Your task to perform on an android device: Add bose quietcomfort 35 to the cart on costco.com Image 0: 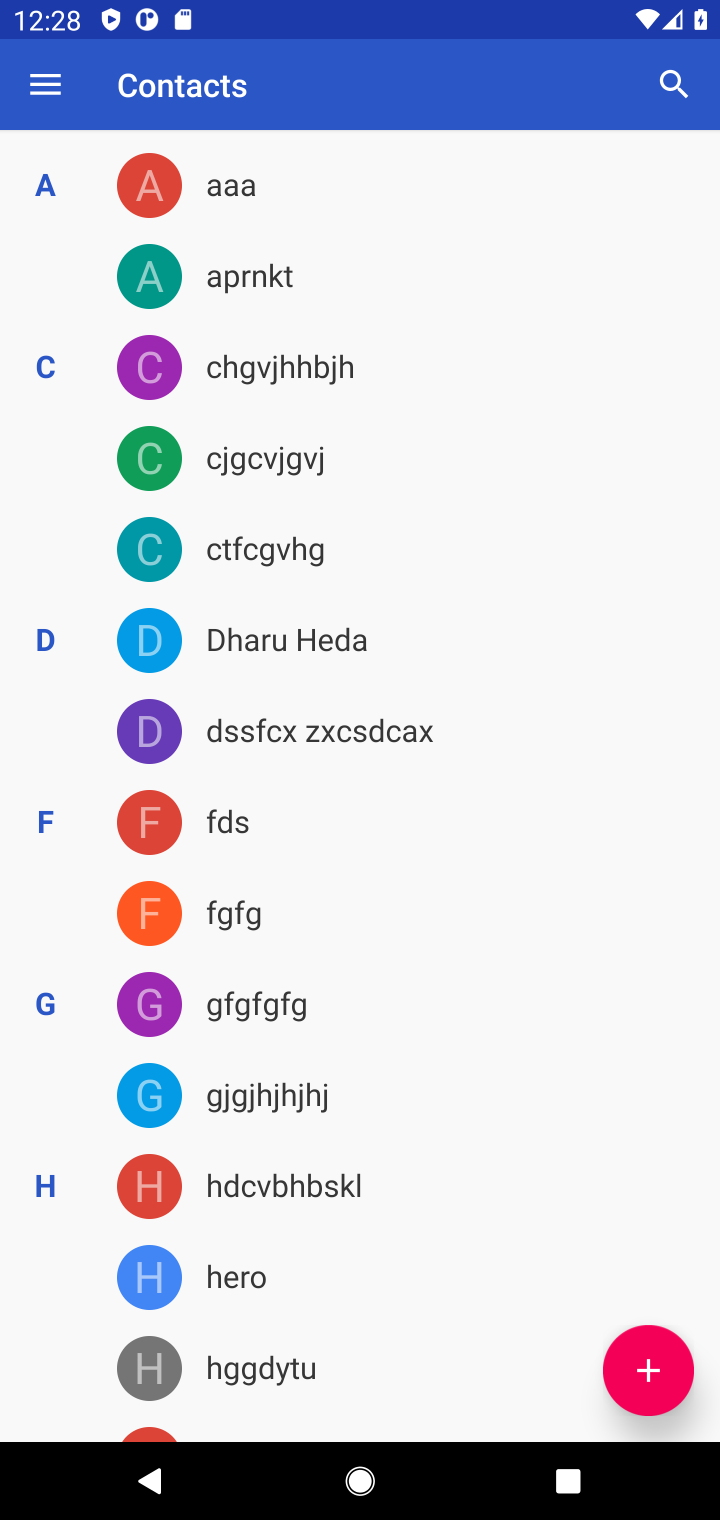
Step 0: press home button
Your task to perform on an android device: Add bose quietcomfort 35 to the cart on costco.com Image 1: 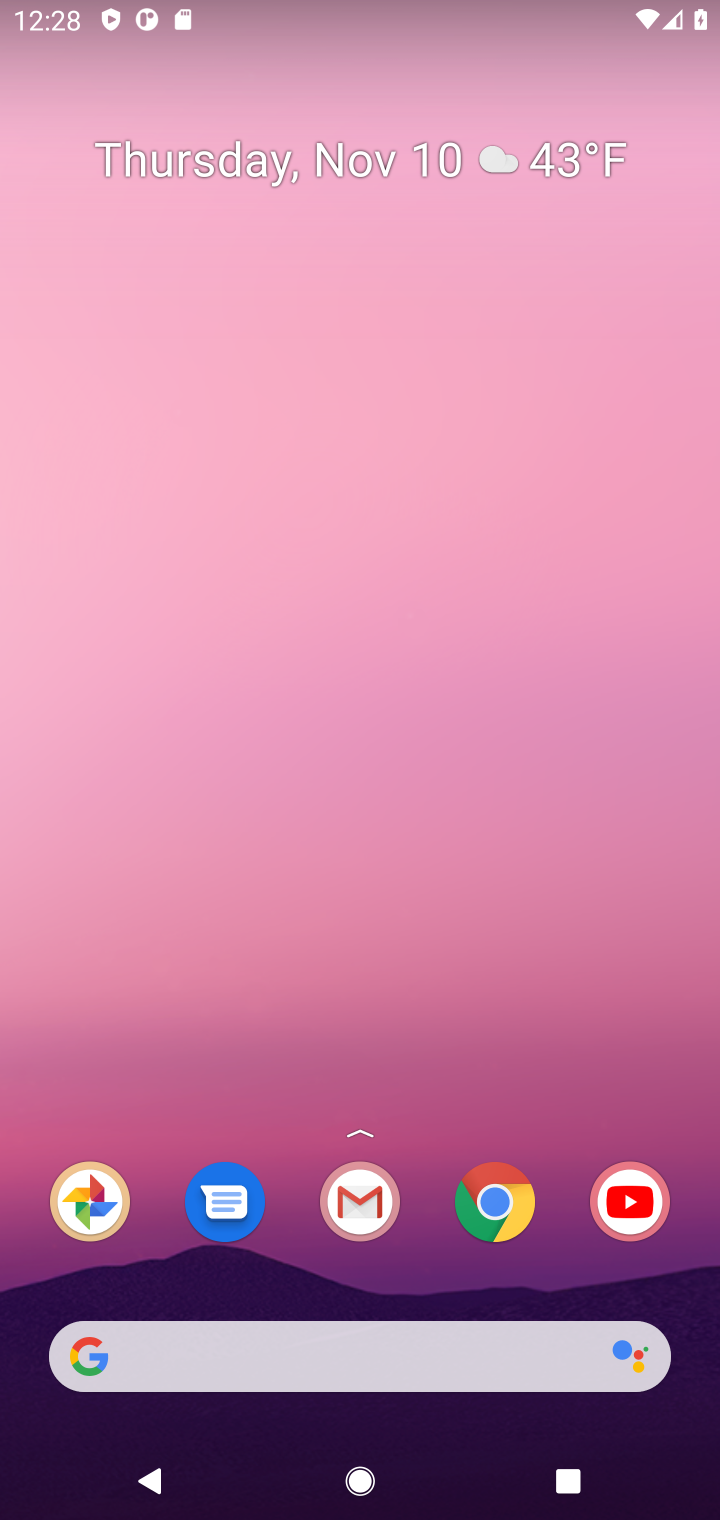
Step 1: click (511, 1197)
Your task to perform on an android device: Add bose quietcomfort 35 to the cart on costco.com Image 2: 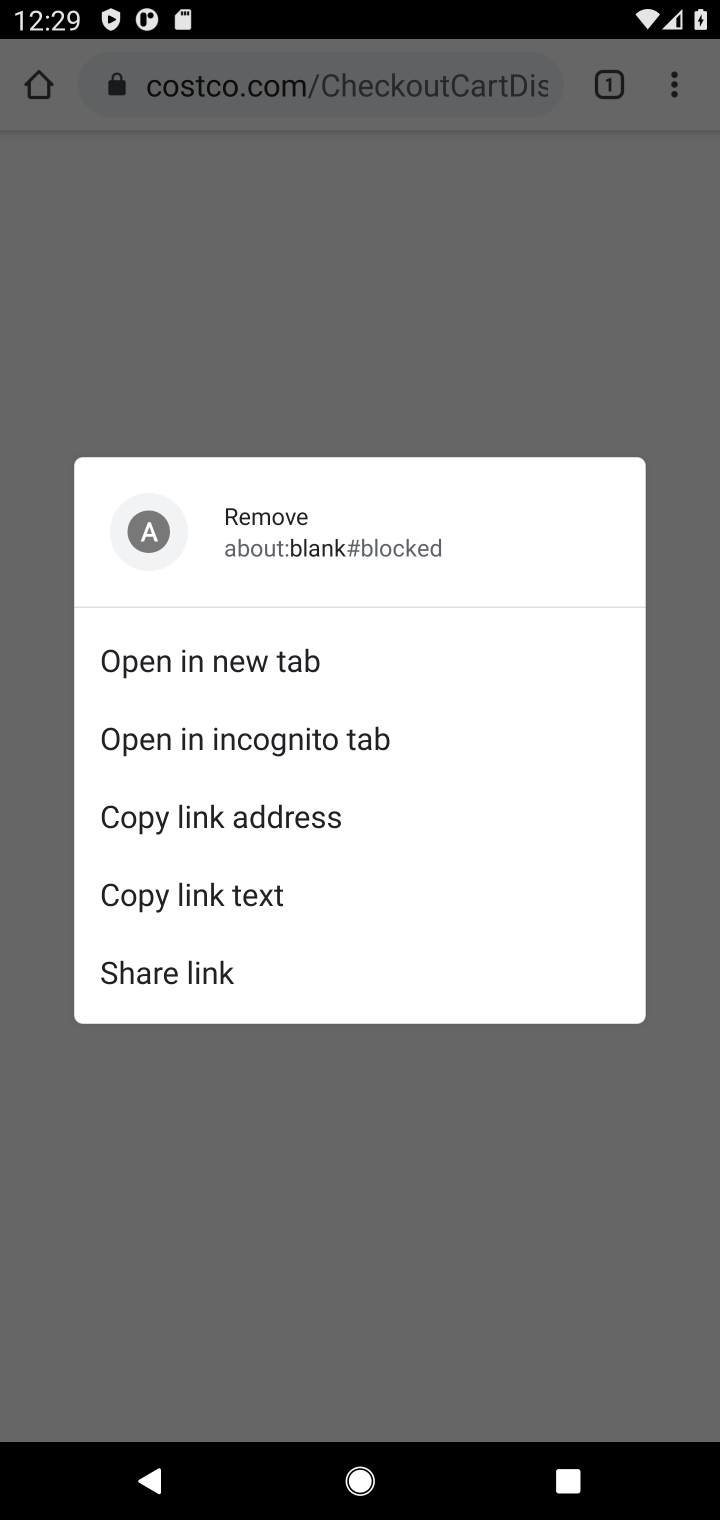
Step 2: press home button
Your task to perform on an android device: Add bose quietcomfort 35 to the cart on costco.com Image 3: 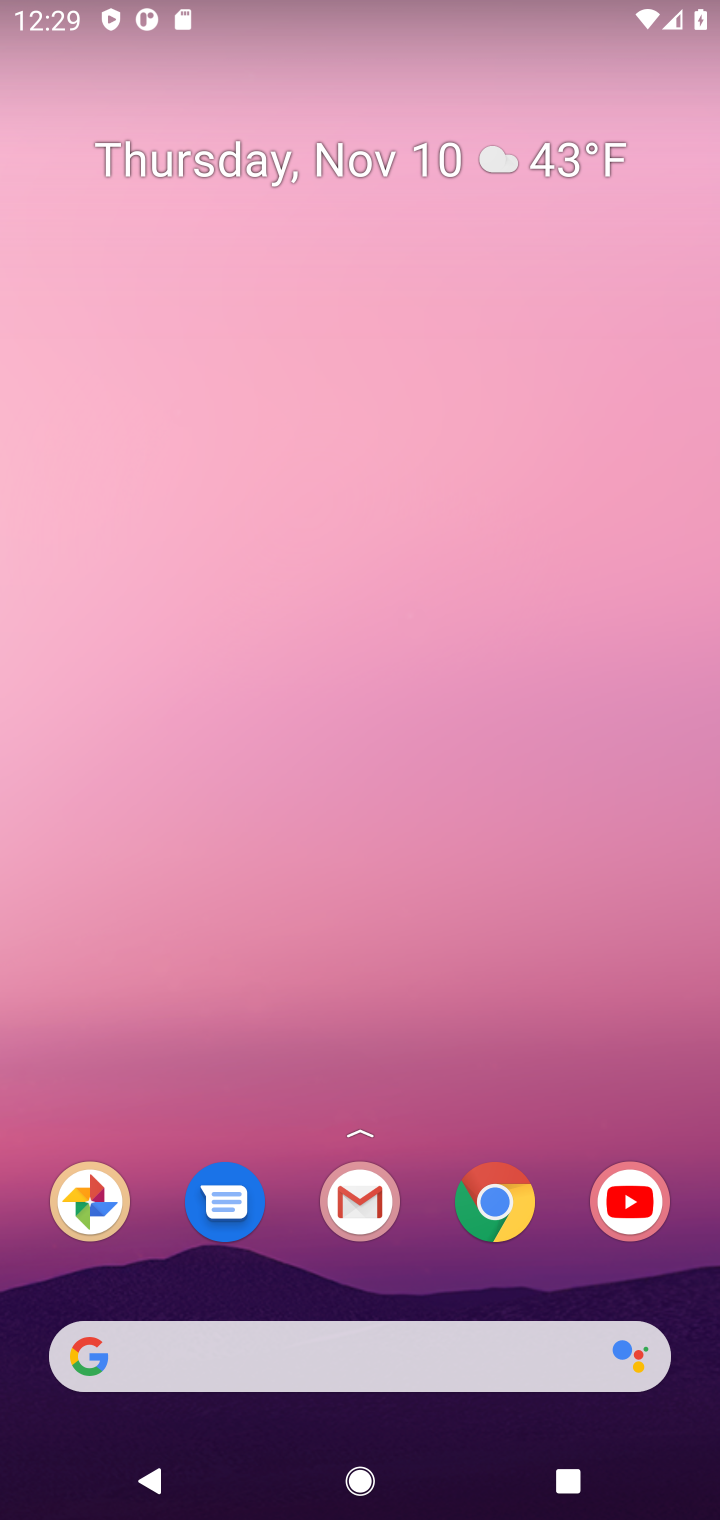
Step 3: click (512, 1194)
Your task to perform on an android device: Add bose quietcomfort 35 to the cart on costco.com Image 4: 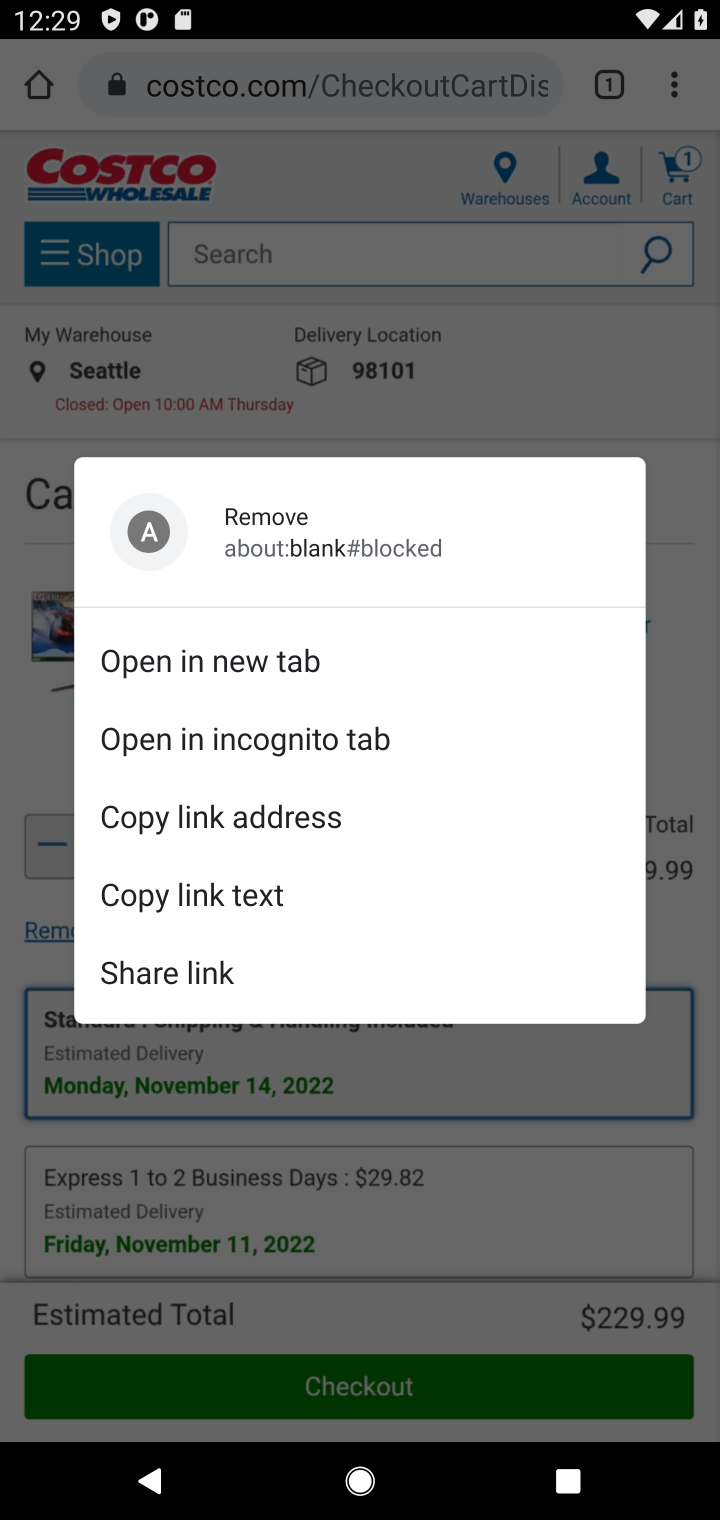
Step 4: click (266, 257)
Your task to perform on an android device: Add bose quietcomfort 35 to the cart on costco.com Image 5: 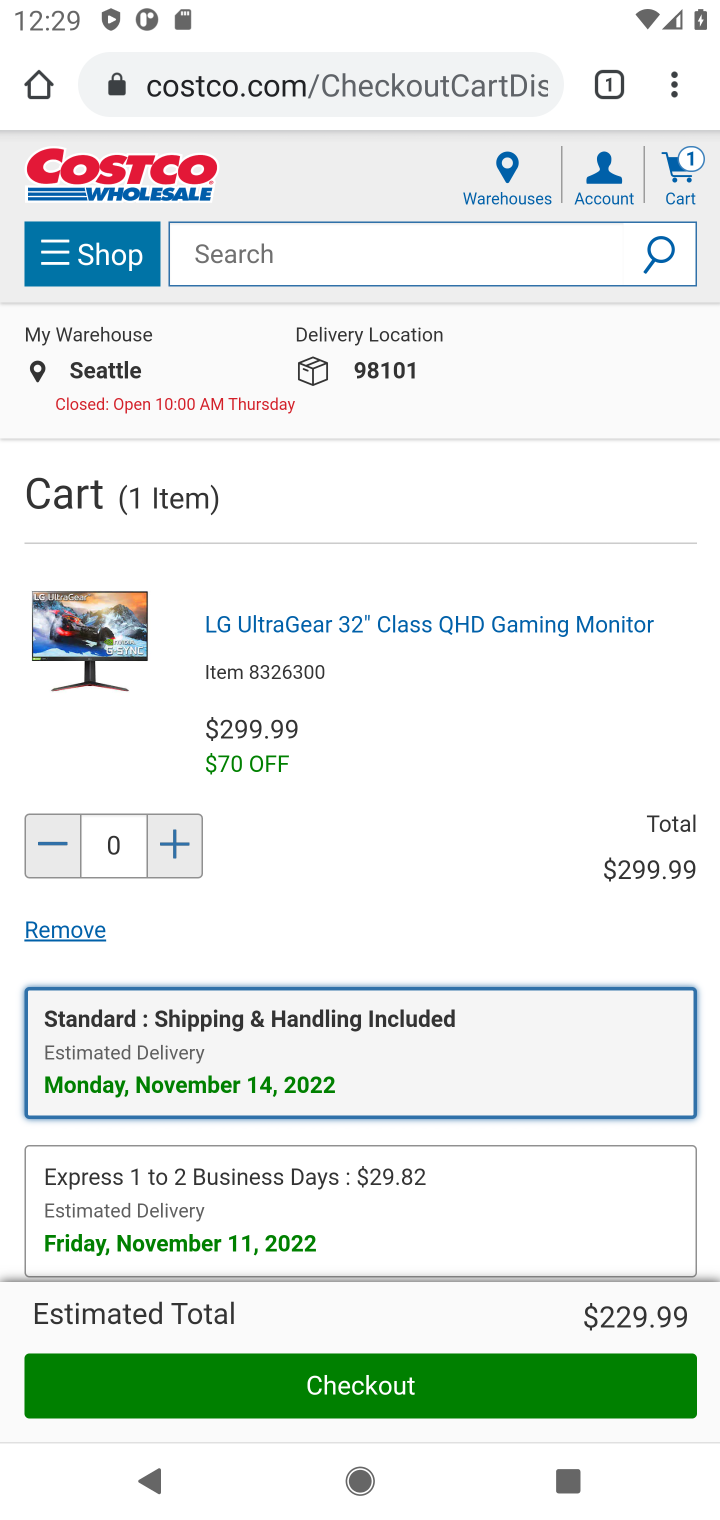
Step 5: click (510, 259)
Your task to perform on an android device: Add bose quietcomfort 35 to the cart on costco.com Image 6: 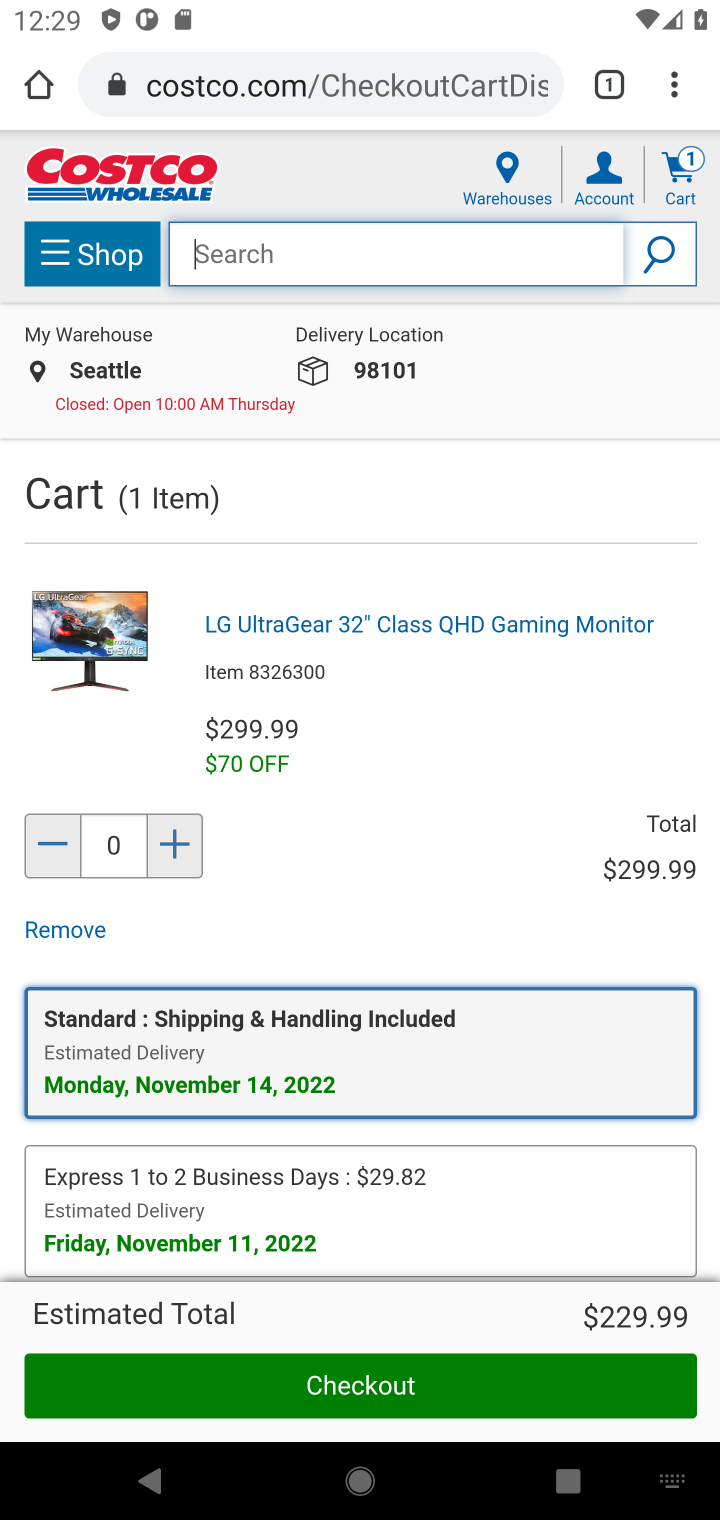
Step 6: type "bose quietcomfort 35 "
Your task to perform on an android device: Add bose quietcomfort 35 to the cart on costco.com Image 7: 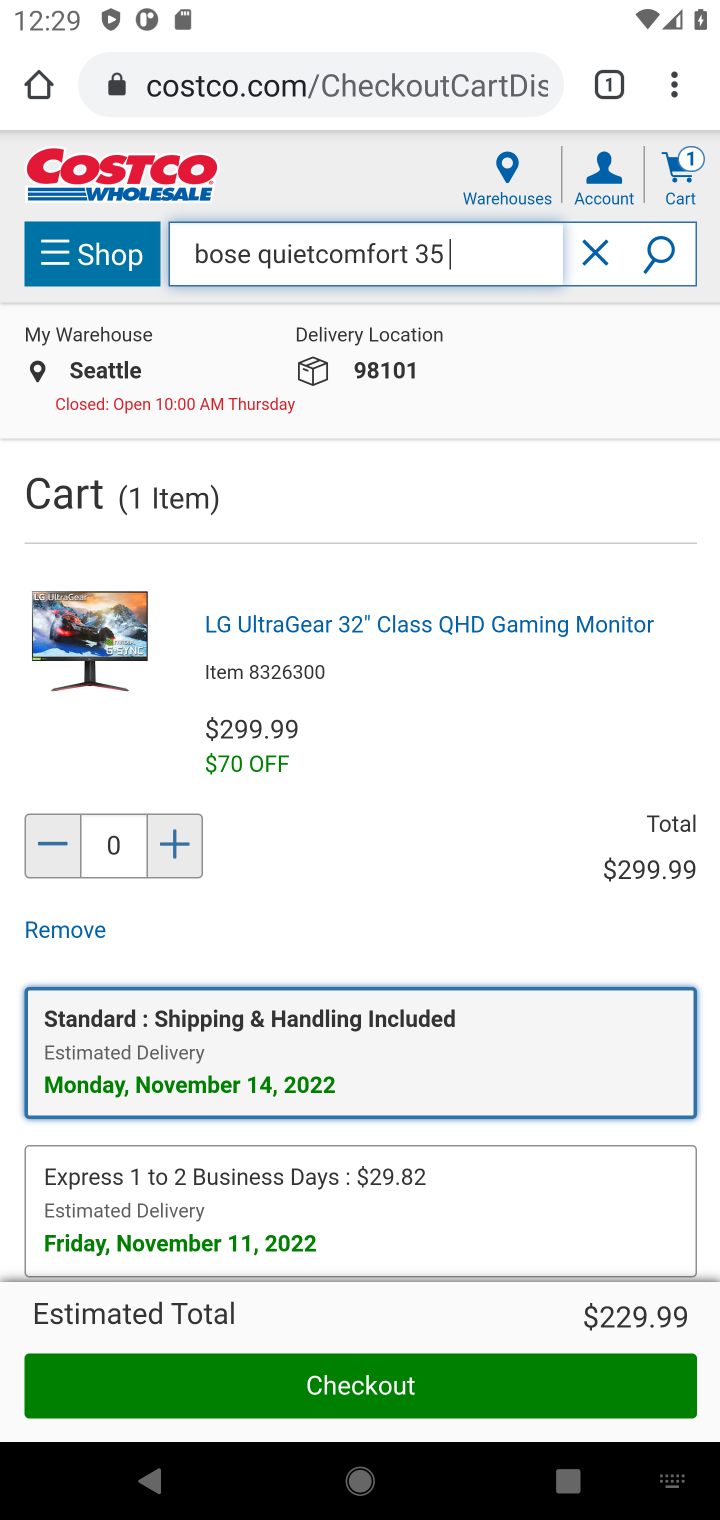
Step 7: press enter
Your task to perform on an android device: Add bose quietcomfort 35 to the cart on costco.com Image 8: 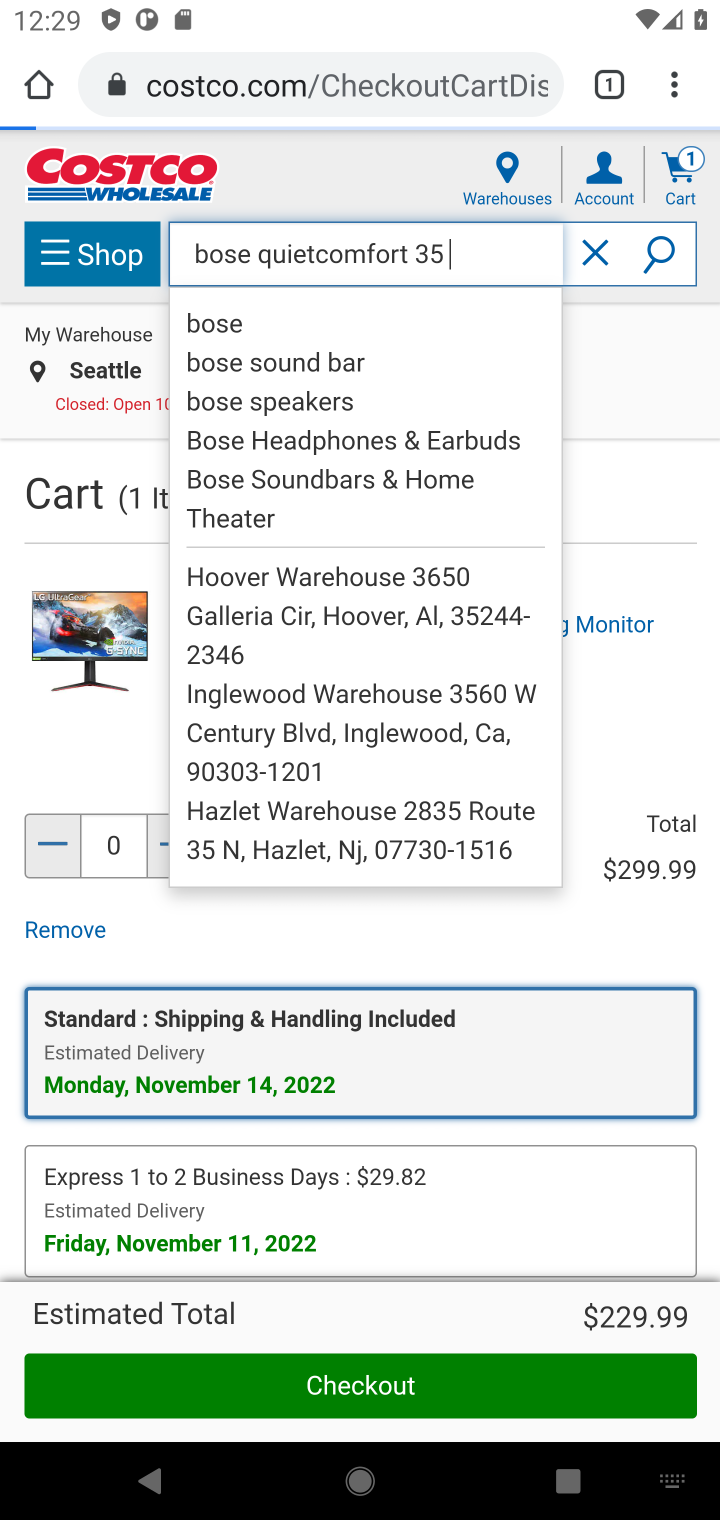
Step 8: click (633, 409)
Your task to perform on an android device: Add bose quietcomfort 35 to the cart on costco.com Image 9: 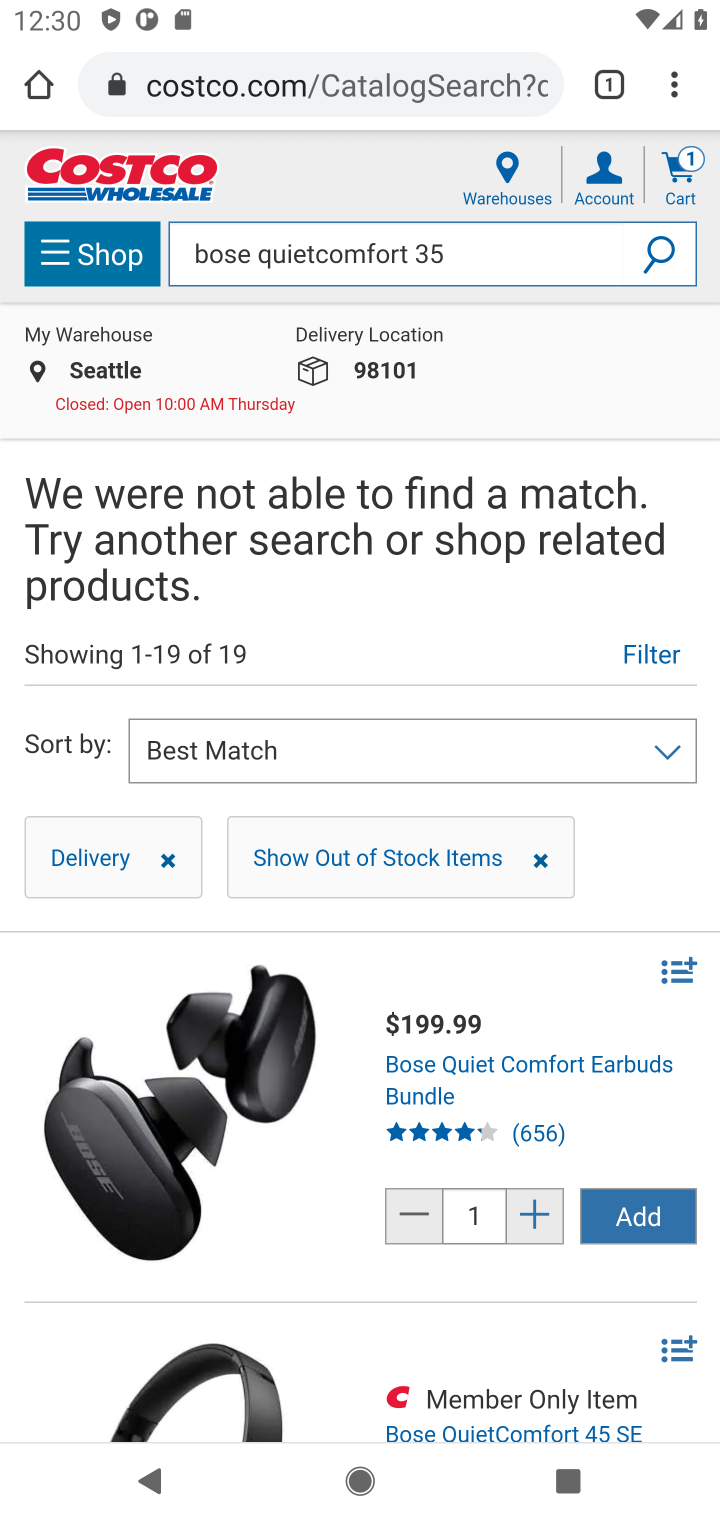
Step 9: task complete